Your task to perform on an android device: set the stopwatch Image 0: 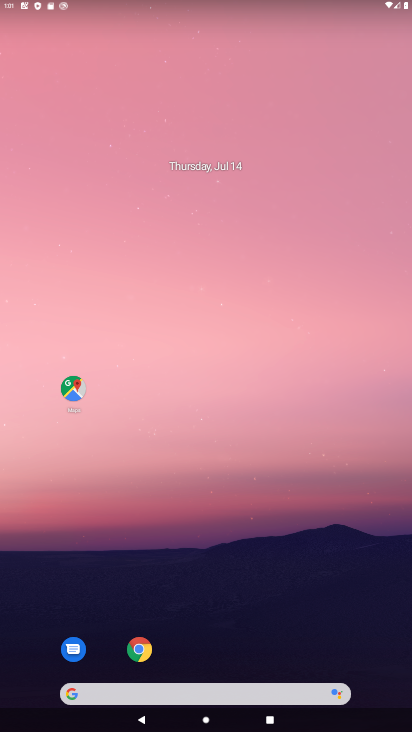
Step 0: drag from (320, 424) to (268, 13)
Your task to perform on an android device: set the stopwatch Image 1: 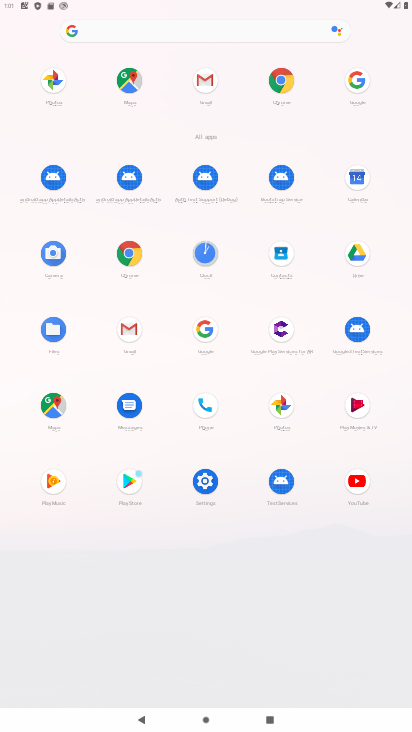
Step 1: click (209, 251)
Your task to perform on an android device: set the stopwatch Image 2: 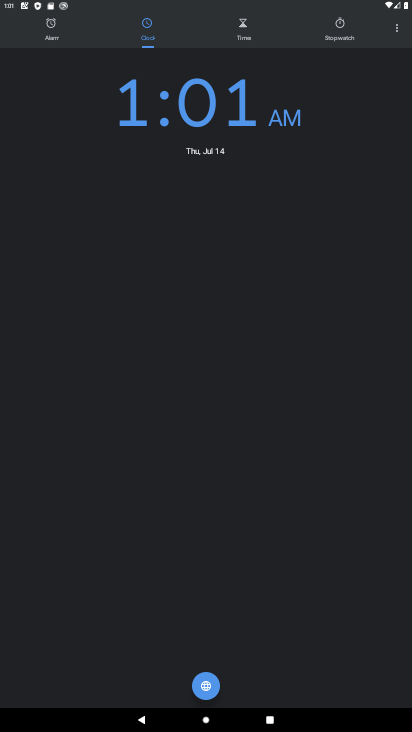
Step 2: click (335, 37)
Your task to perform on an android device: set the stopwatch Image 3: 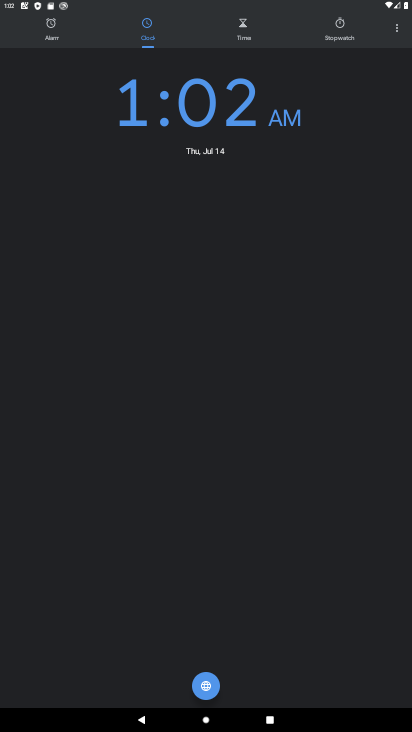
Step 3: click (335, 39)
Your task to perform on an android device: set the stopwatch Image 4: 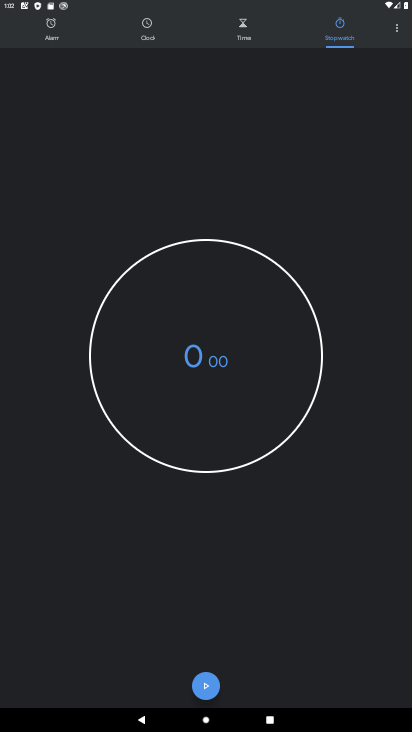
Step 4: click (206, 687)
Your task to perform on an android device: set the stopwatch Image 5: 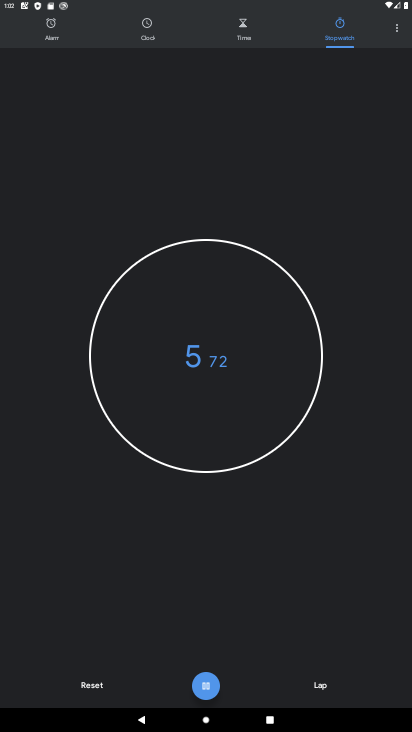
Step 5: task complete